Your task to perform on an android device: see sites visited before in the chrome app Image 0: 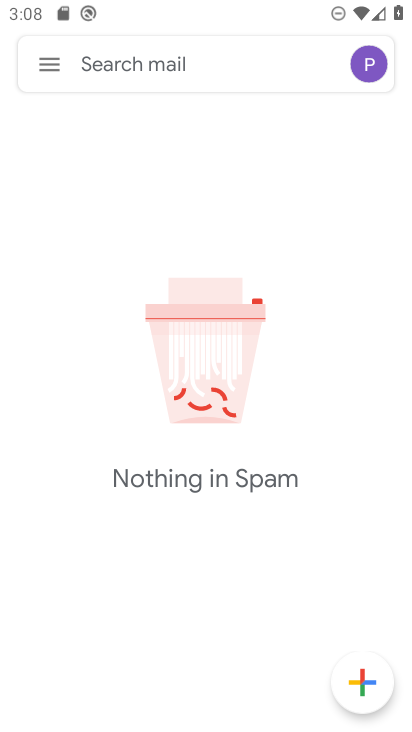
Step 0: press home button
Your task to perform on an android device: see sites visited before in the chrome app Image 1: 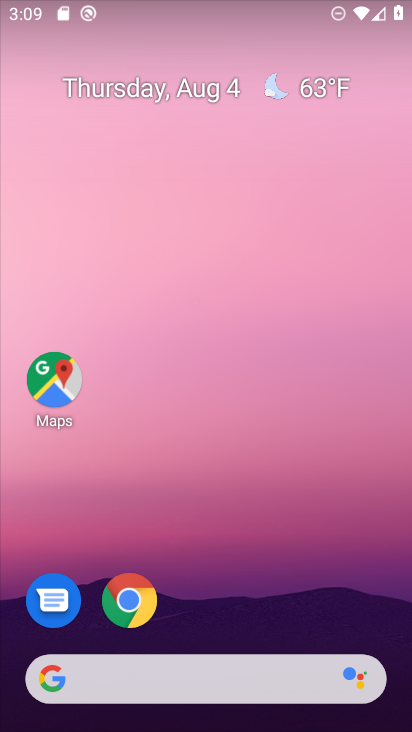
Step 1: click (118, 599)
Your task to perform on an android device: see sites visited before in the chrome app Image 2: 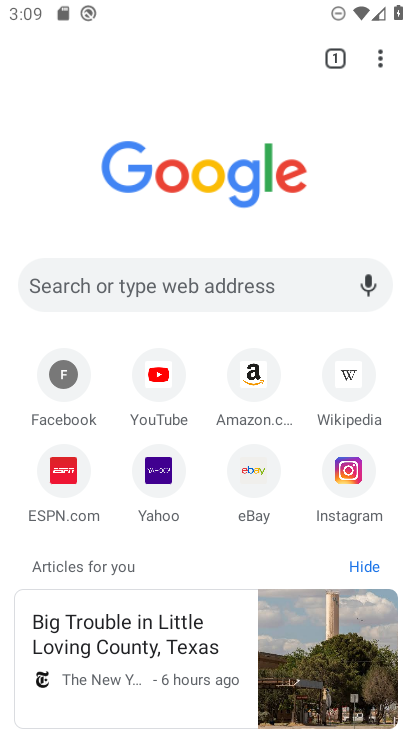
Step 2: task complete